Your task to perform on an android device: Is it going to rain tomorrow? Image 0: 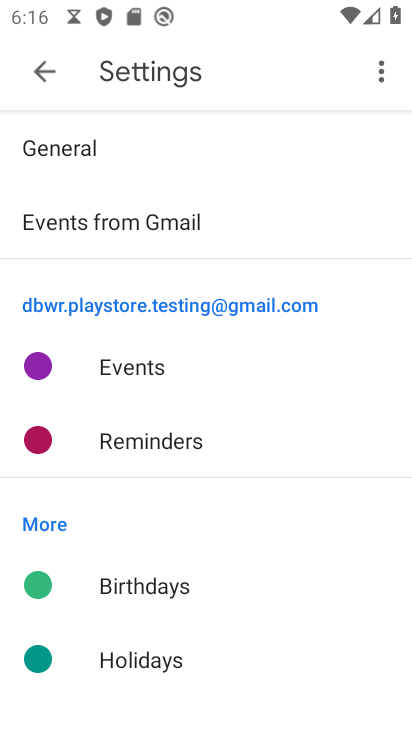
Step 0: press home button
Your task to perform on an android device: Is it going to rain tomorrow? Image 1: 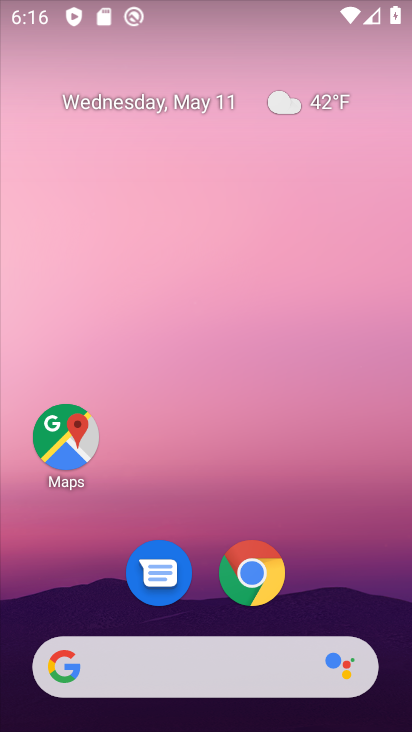
Step 1: drag from (298, 466) to (271, 156)
Your task to perform on an android device: Is it going to rain tomorrow? Image 2: 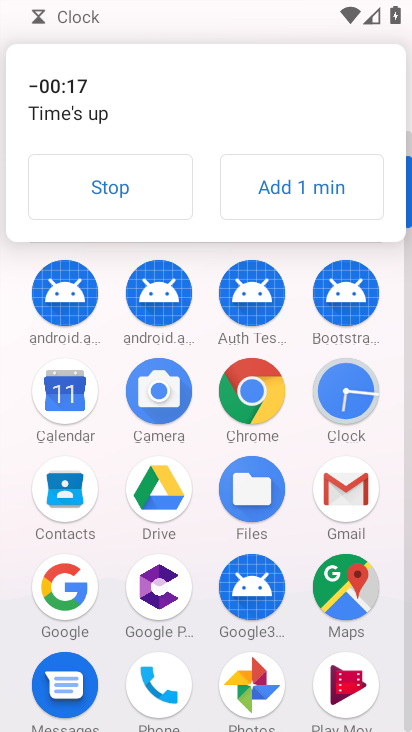
Step 2: click (163, 193)
Your task to perform on an android device: Is it going to rain tomorrow? Image 3: 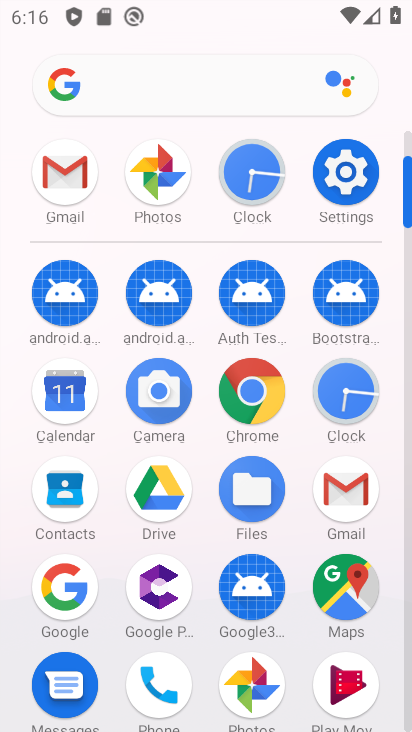
Step 3: click (208, 262)
Your task to perform on an android device: Is it going to rain tomorrow? Image 4: 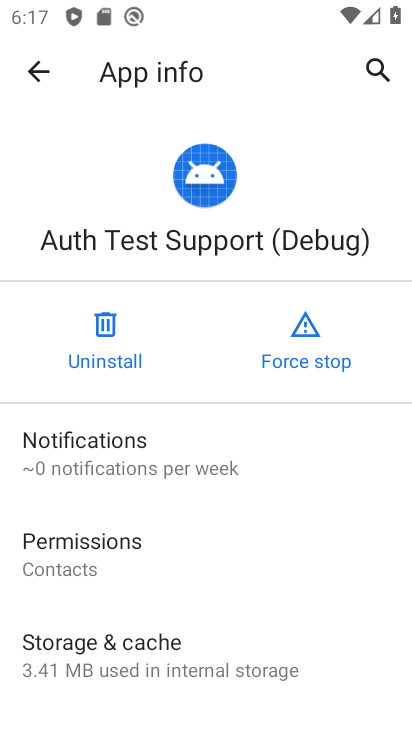
Step 4: click (34, 76)
Your task to perform on an android device: Is it going to rain tomorrow? Image 5: 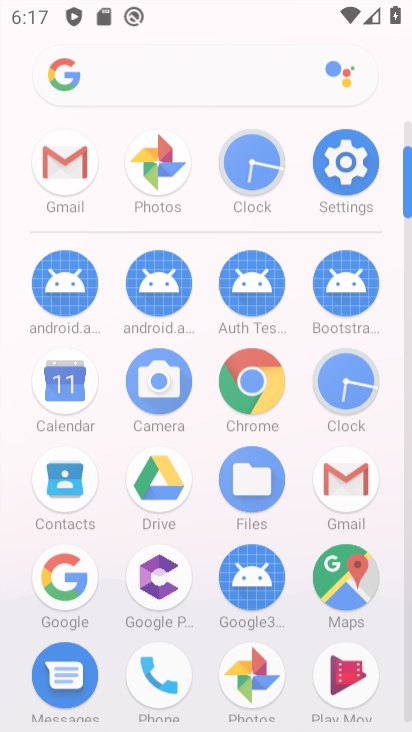
Step 5: click (34, 76)
Your task to perform on an android device: Is it going to rain tomorrow? Image 6: 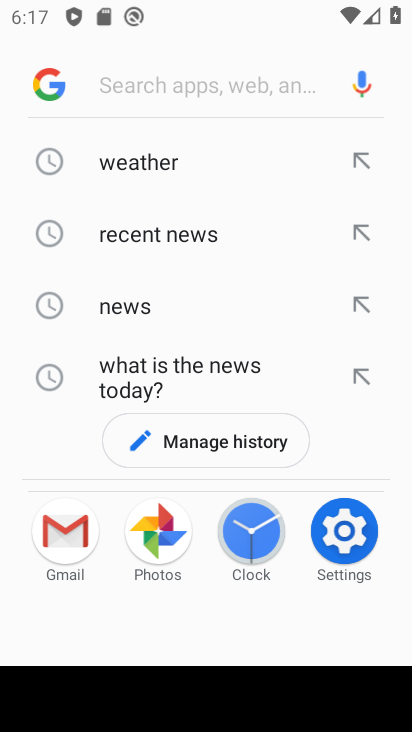
Step 6: press back button
Your task to perform on an android device: Is it going to rain tomorrow? Image 7: 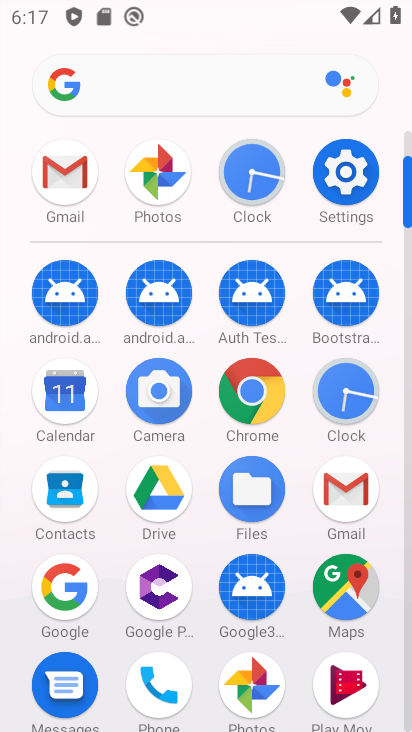
Step 7: drag from (198, 421) to (204, 379)
Your task to perform on an android device: Is it going to rain tomorrow? Image 8: 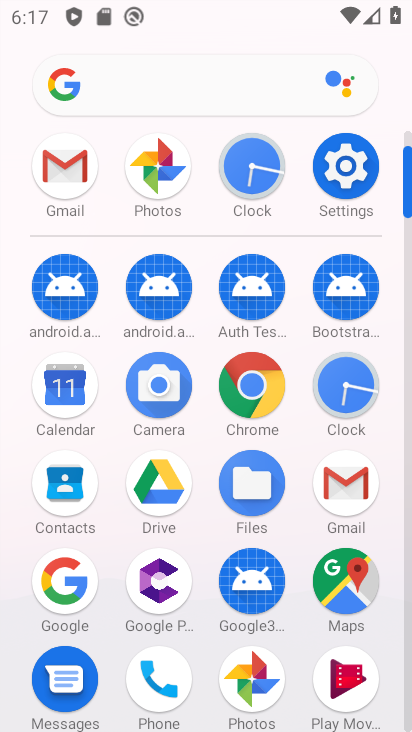
Step 8: drag from (185, 408) to (187, 373)
Your task to perform on an android device: Is it going to rain tomorrow? Image 9: 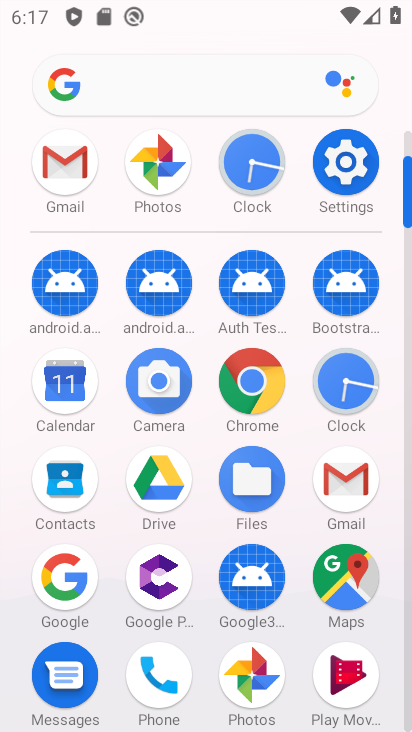
Step 9: drag from (187, 600) to (226, 216)
Your task to perform on an android device: Is it going to rain tomorrow? Image 10: 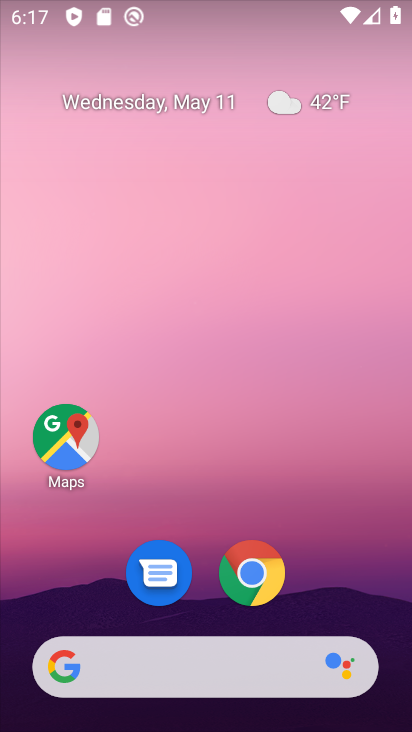
Step 10: drag from (304, 464) to (230, 55)
Your task to perform on an android device: Is it going to rain tomorrow? Image 11: 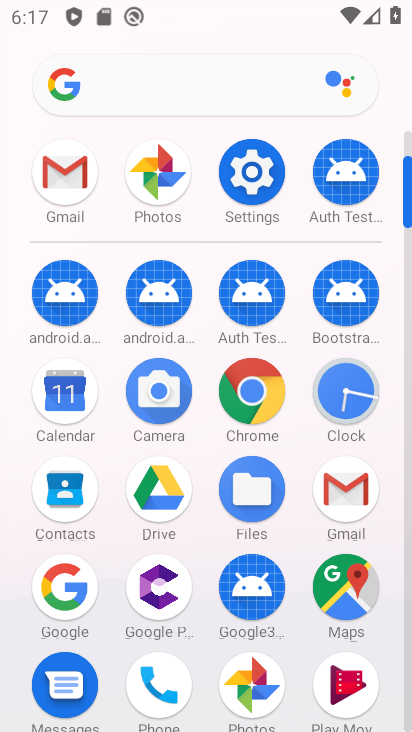
Step 11: click (69, 608)
Your task to perform on an android device: Is it going to rain tomorrow? Image 12: 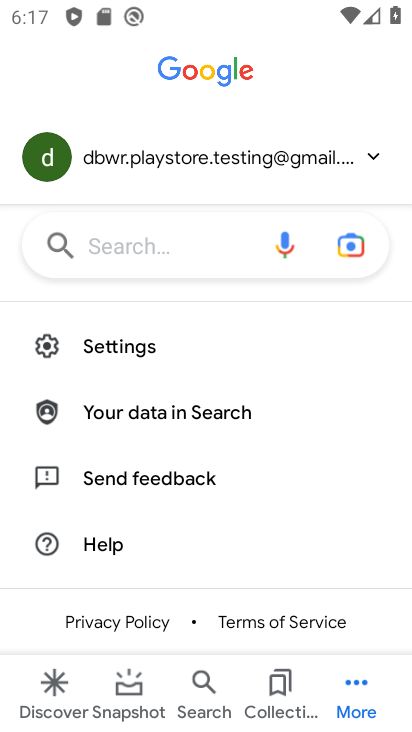
Step 12: click (185, 220)
Your task to perform on an android device: Is it going to rain tomorrow? Image 13: 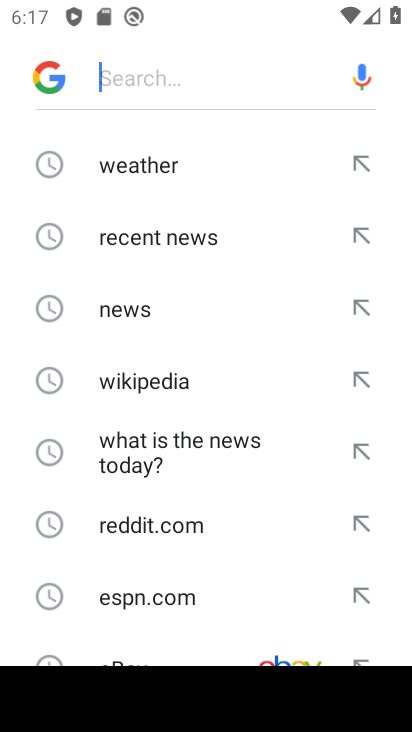
Step 13: click (124, 168)
Your task to perform on an android device: Is it going to rain tomorrow? Image 14: 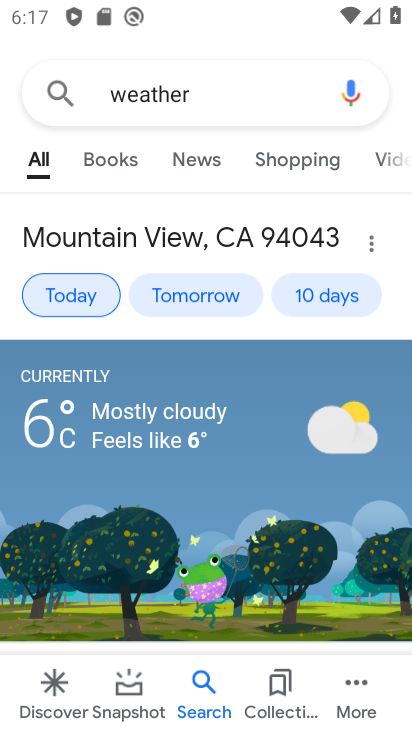
Step 14: click (179, 297)
Your task to perform on an android device: Is it going to rain tomorrow? Image 15: 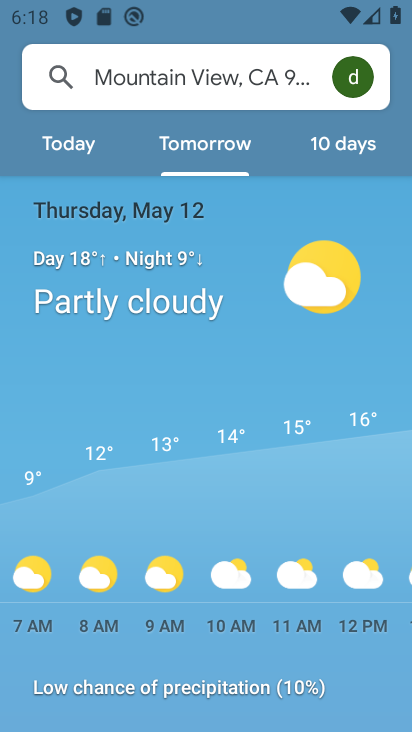
Step 15: task complete